Your task to perform on an android device: Open Reddit.com Image 0: 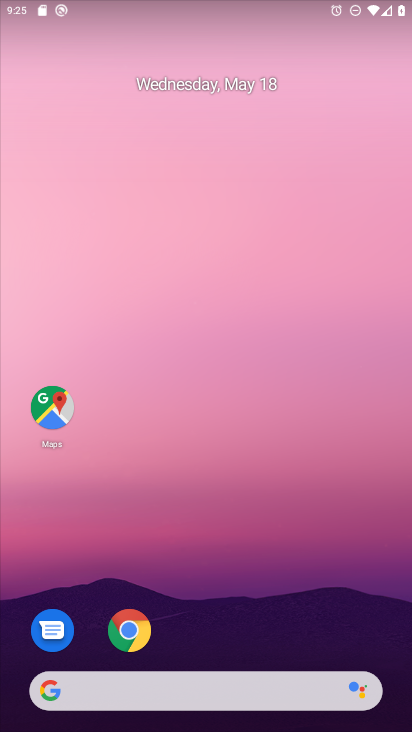
Step 0: click (133, 637)
Your task to perform on an android device: Open Reddit.com Image 1: 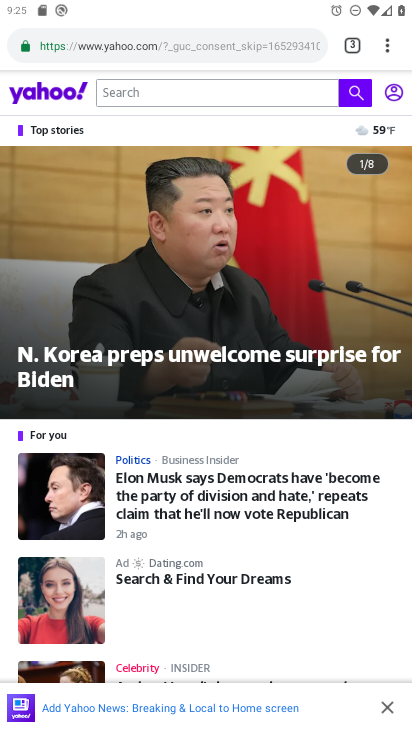
Step 1: click (366, 49)
Your task to perform on an android device: Open Reddit.com Image 2: 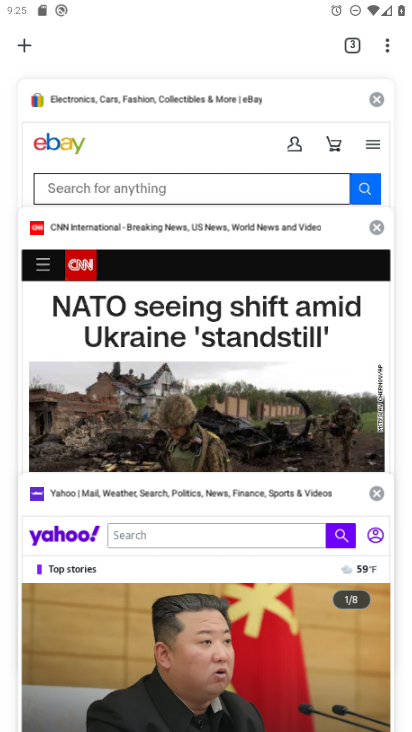
Step 2: click (18, 44)
Your task to perform on an android device: Open Reddit.com Image 3: 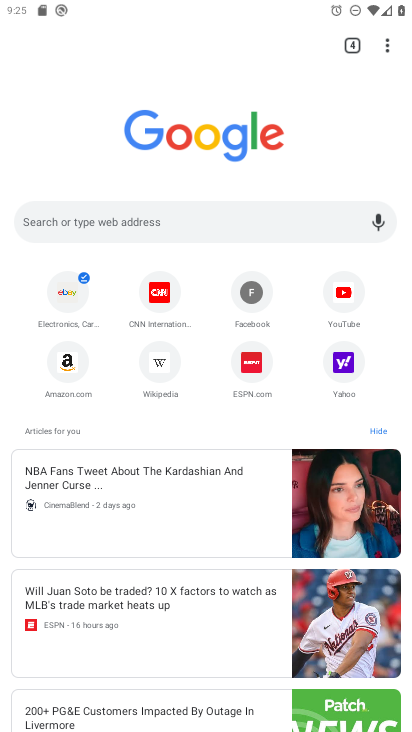
Step 3: click (179, 218)
Your task to perform on an android device: Open Reddit.com Image 4: 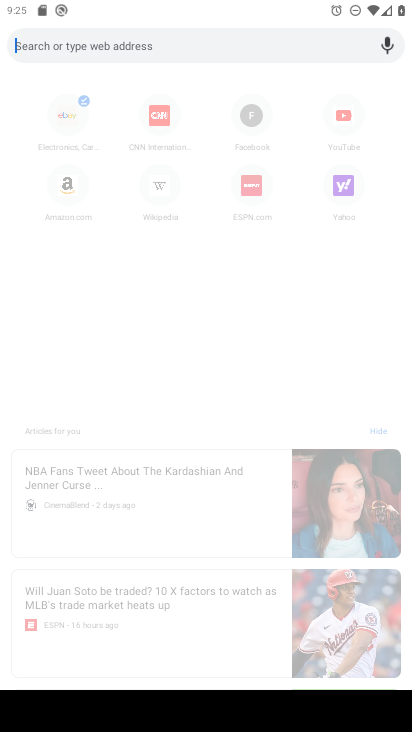
Step 4: type "reddit"
Your task to perform on an android device: Open Reddit.com Image 5: 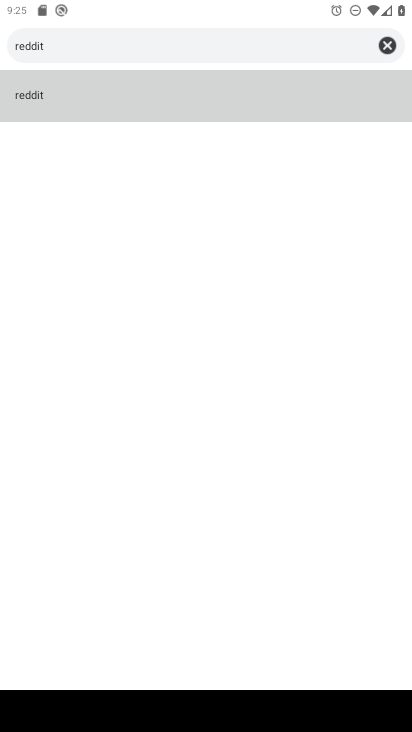
Step 5: click (72, 103)
Your task to perform on an android device: Open Reddit.com Image 6: 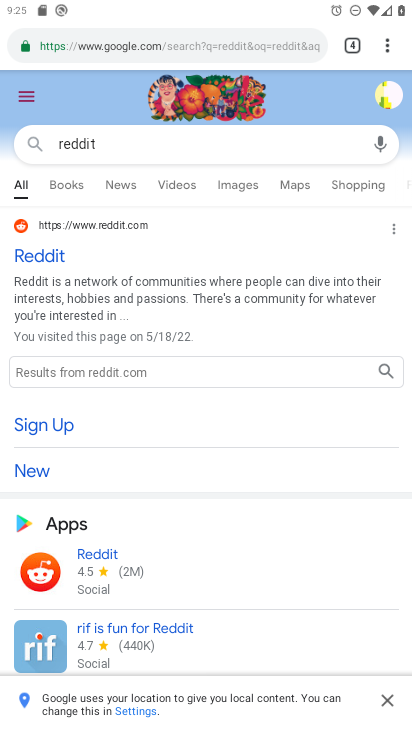
Step 6: click (41, 262)
Your task to perform on an android device: Open Reddit.com Image 7: 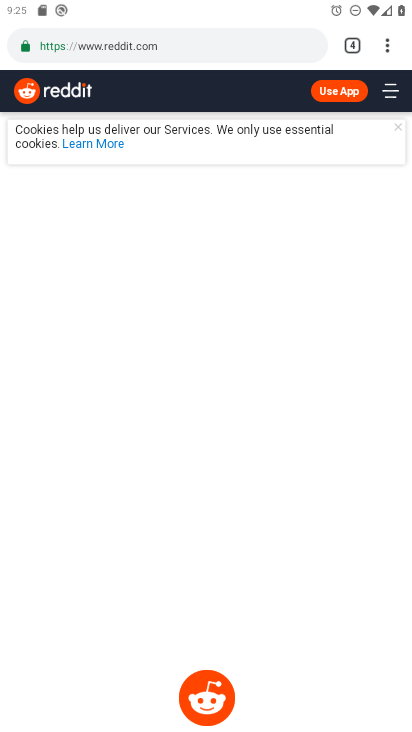
Step 7: task complete